Your task to perform on an android device: Open network settings Image 0: 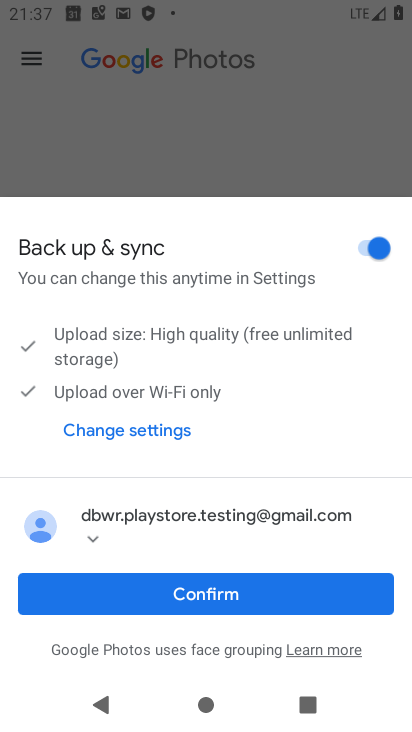
Step 0: press home button
Your task to perform on an android device: Open network settings Image 1: 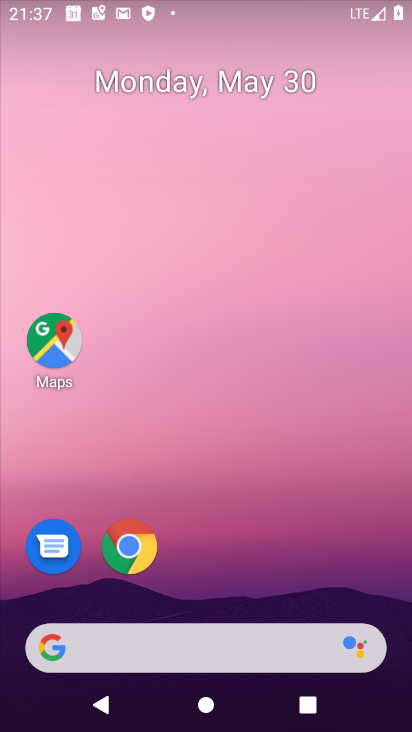
Step 1: drag from (366, 568) to (337, 173)
Your task to perform on an android device: Open network settings Image 2: 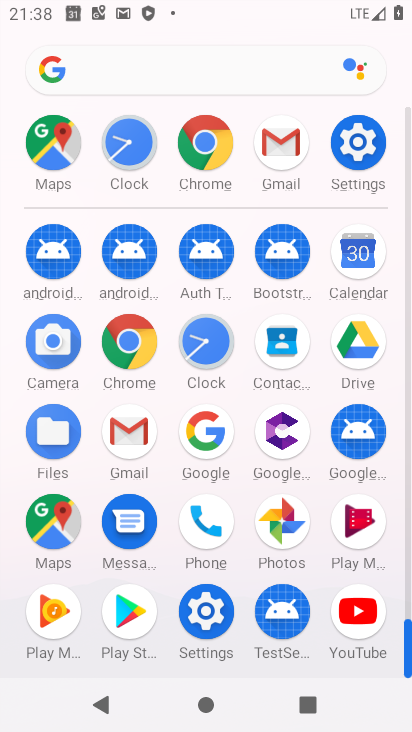
Step 2: click (218, 623)
Your task to perform on an android device: Open network settings Image 3: 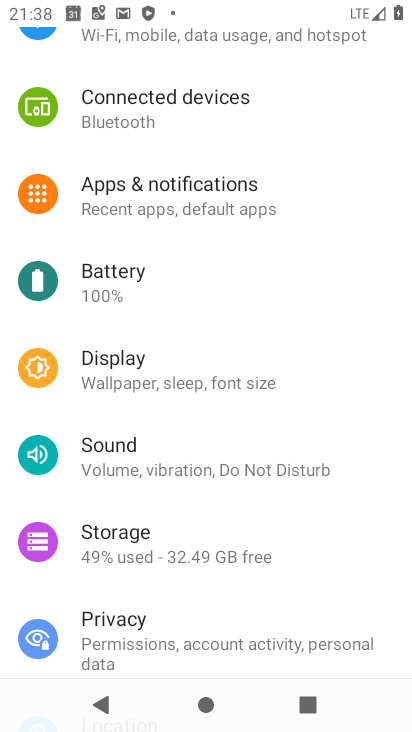
Step 3: drag from (238, 293) to (204, 583)
Your task to perform on an android device: Open network settings Image 4: 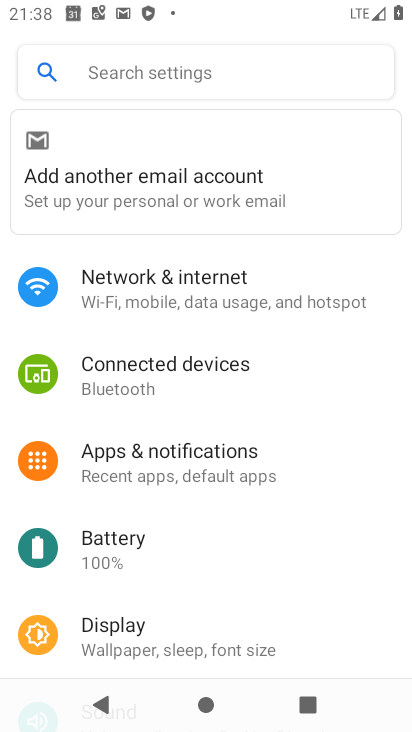
Step 4: click (172, 305)
Your task to perform on an android device: Open network settings Image 5: 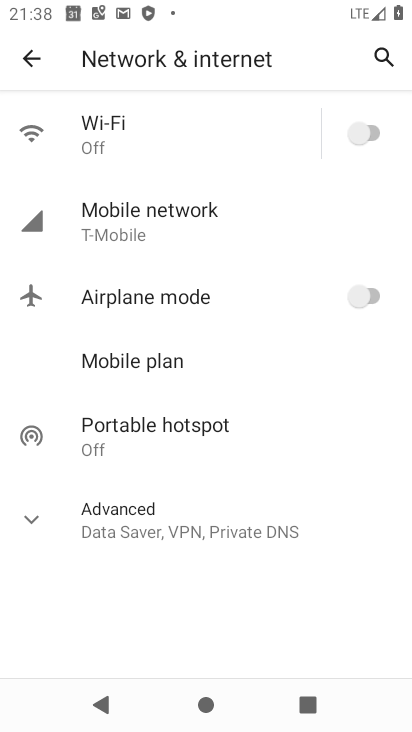
Step 5: task complete